Your task to perform on an android device: open a bookmark in the chrome app Image 0: 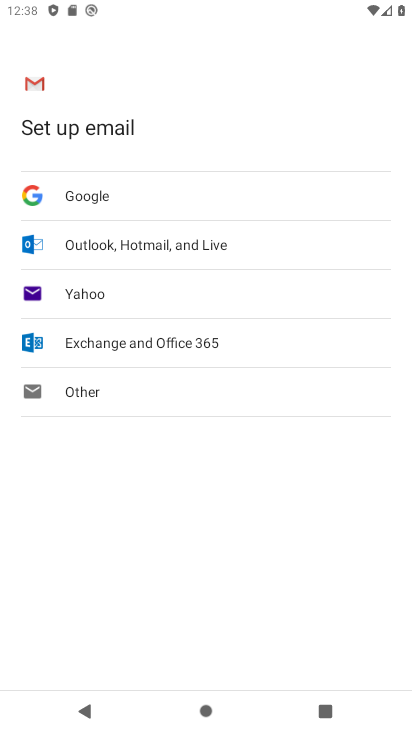
Step 0: press home button
Your task to perform on an android device: open a bookmark in the chrome app Image 1: 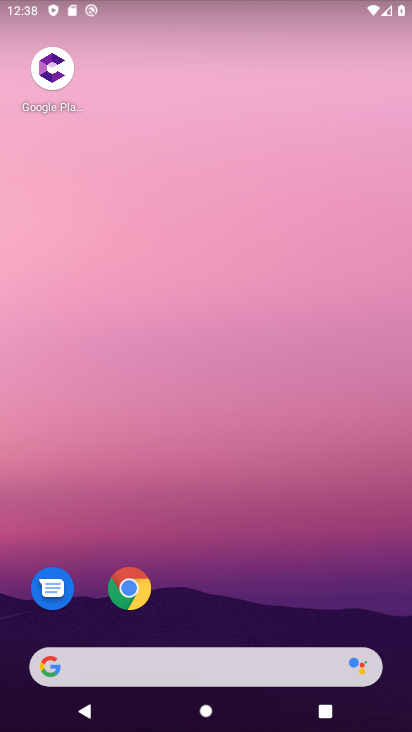
Step 1: drag from (372, 590) to (358, 154)
Your task to perform on an android device: open a bookmark in the chrome app Image 2: 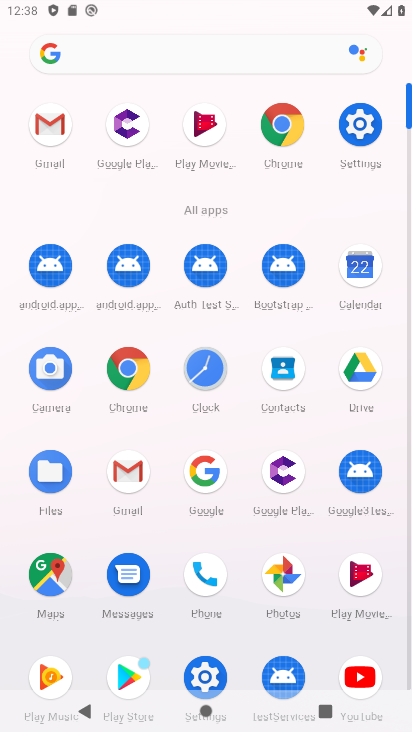
Step 2: click (134, 375)
Your task to perform on an android device: open a bookmark in the chrome app Image 3: 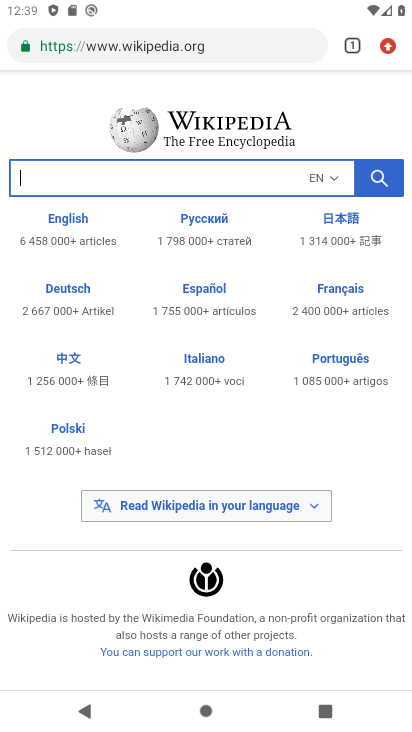
Step 3: task complete